Your task to perform on an android device: set the timer Image 0: 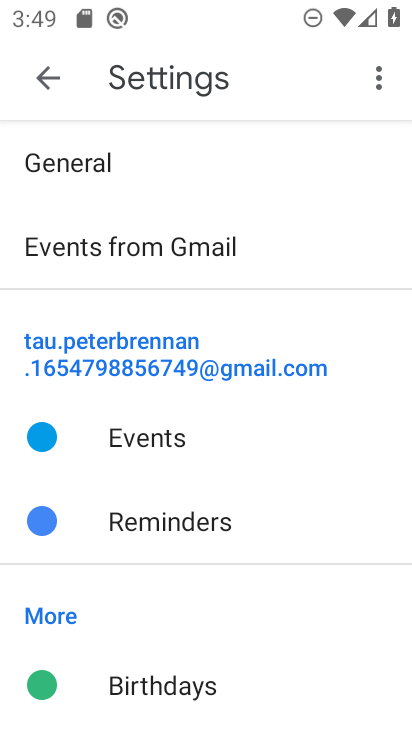
Step 0: press back button
Your task to perform on an android device: set the timer Image 1: 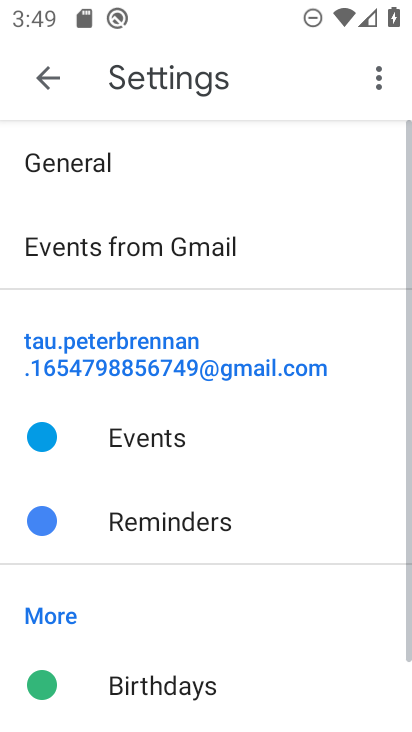
Step 1: press back button
Your task to perform on an android device: set the timer Image 2: 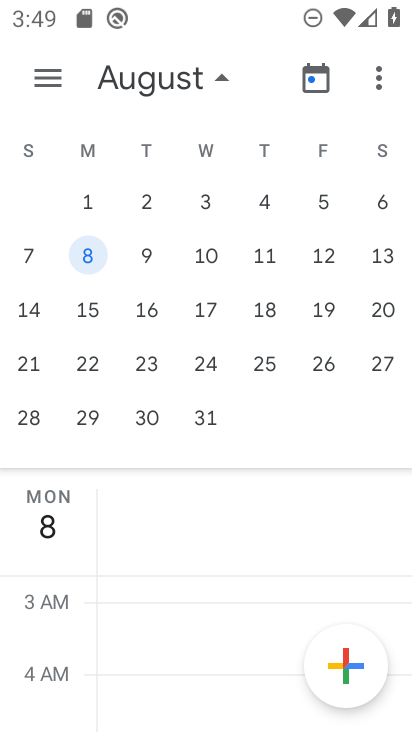
Step 2: press back button
Your task to perform on an android device: set the timer Image 3: 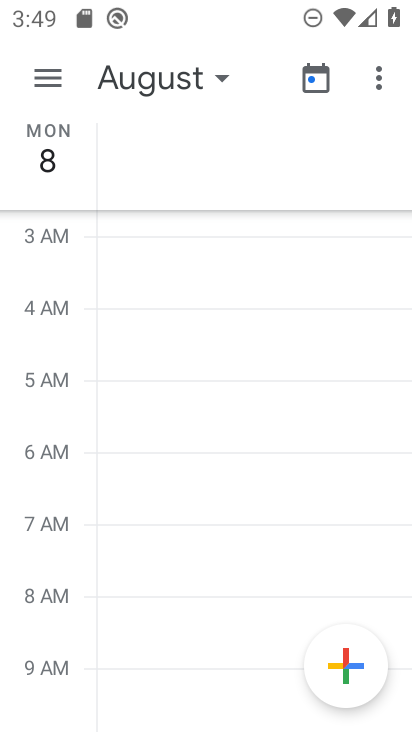
Step 3: press back button
Your task to perform on an android device: set the timer Image 4: 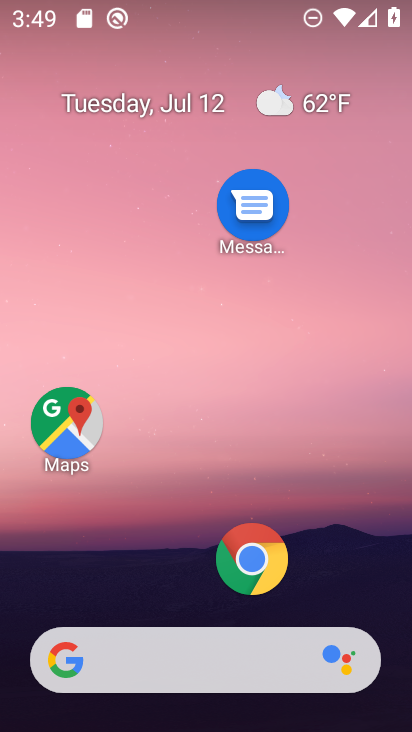
Step 4: drag from (143, 563) to (270, 41)
Your task to perform on an android device: set the timer Image 5: 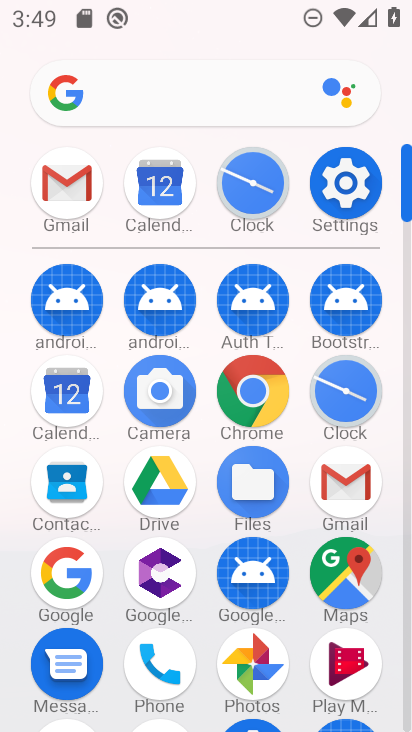
Step 5: click (346, 383)
Your task to perform on an android device: set the timer Image 6: 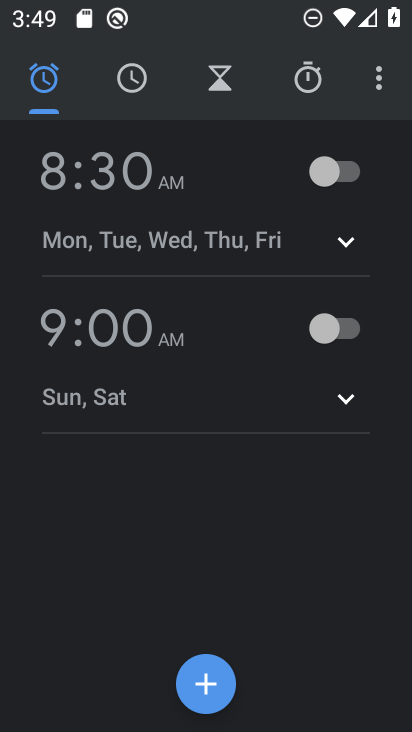
Step 6: click (126, 78)
Your task to perform on an android device: set the timer Image 7: 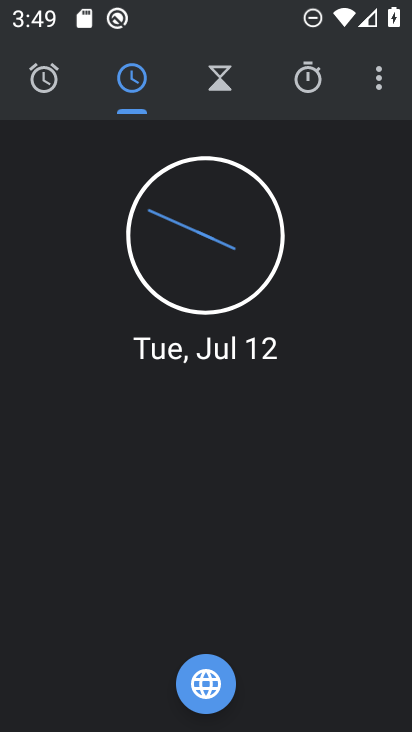
Step 7: click (222, 77)
Your task to perform on an android device: set the timer Image 8: 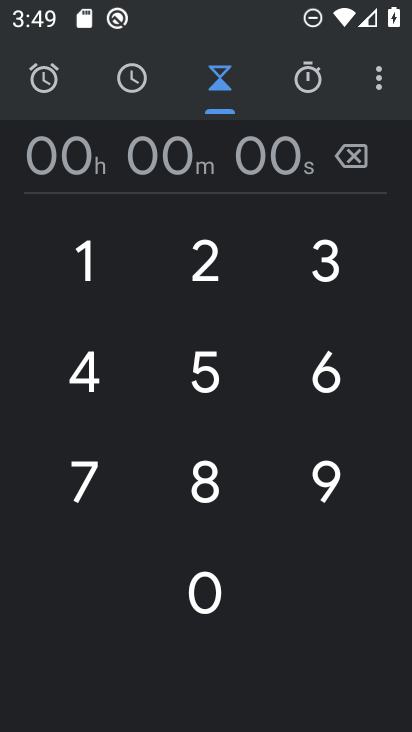
Step 8: click (232, 267)
Your task to perform on an android device: set the timer Image 9: 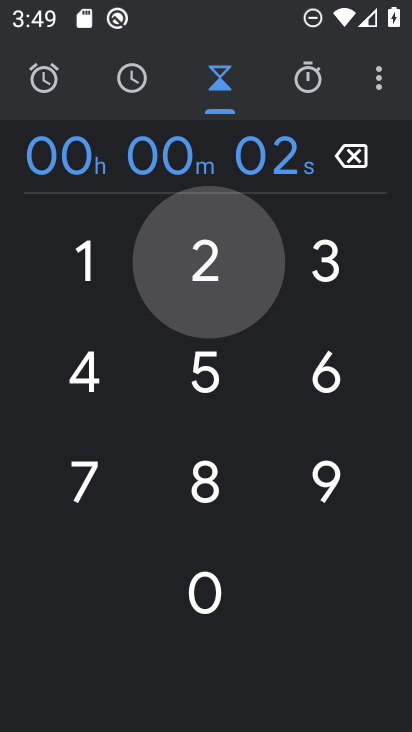
Step 9: click (331, 254)
Your task to perform on an android device: set the timer Image 10: 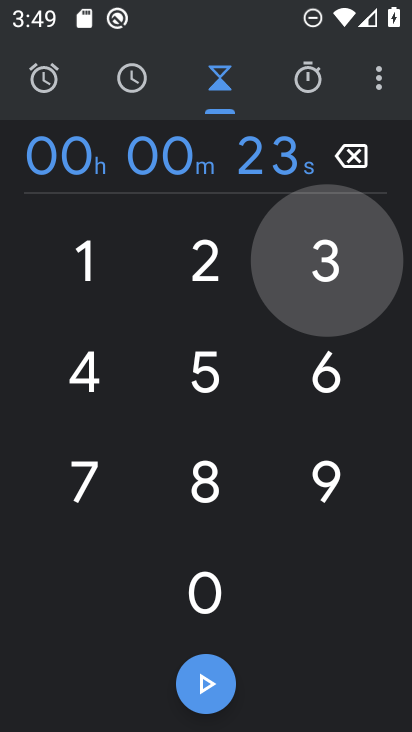
Step 10: click (206, 349)
Your task to perform on an android device: set the timer Image 11: 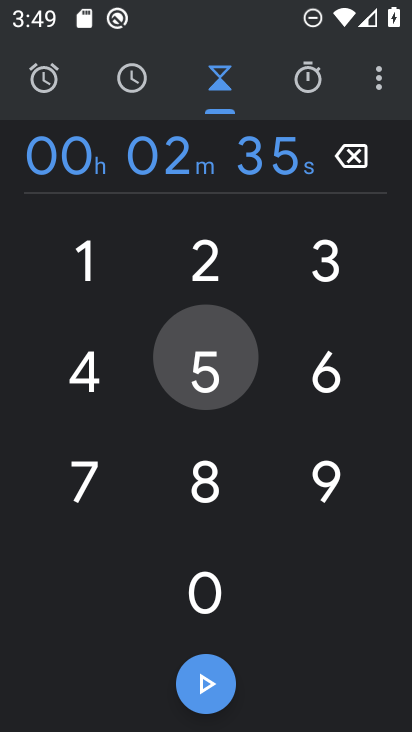
Step 11: click (323, 382)
Your task to perform on an android device: set the timer Image 12: 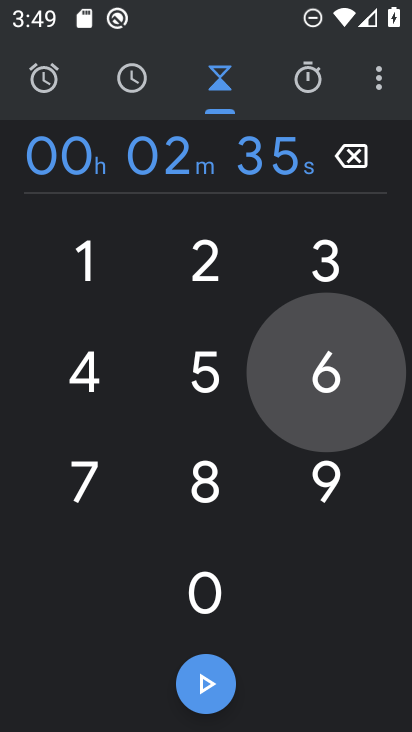
Step 12: click (181, 444)
Your task to perform on an android device: set the timer Image 13: 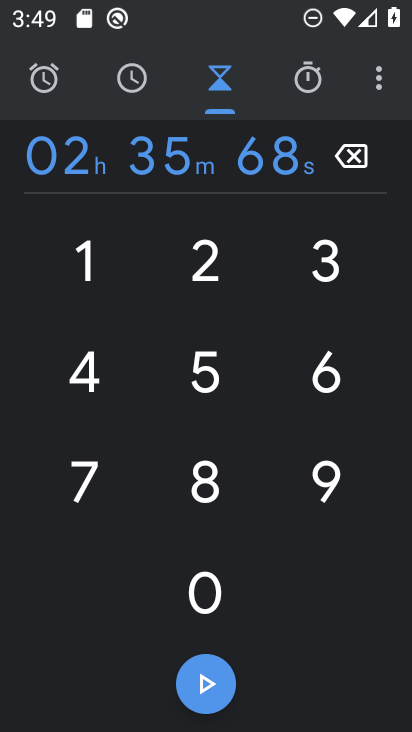
Step 13: task complete